Your task to perform on an android device: Is it going to rain today? Image 0: 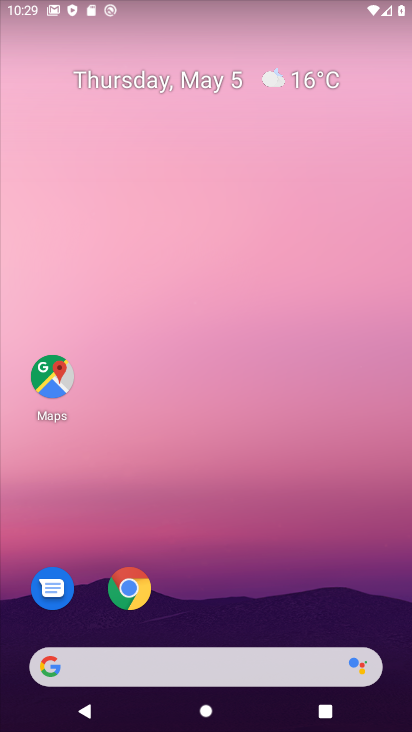
Step 0: drag from (209, 532) to (132, 20)
Your task to perform on an android device: Is it going to rain today? Image 1: 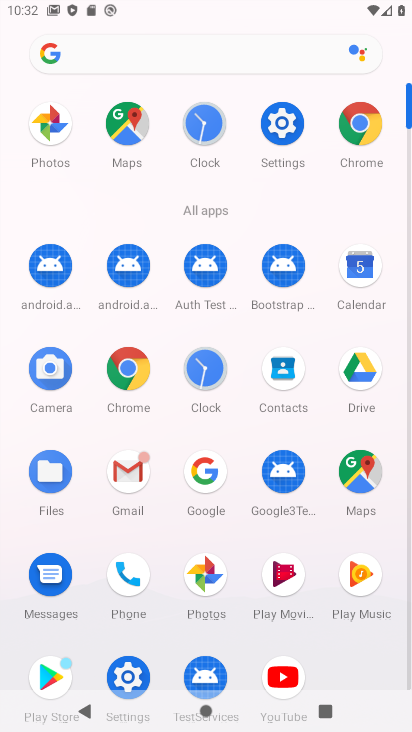
Step 1: click (332, 140)
Your task to perform on an android device: Is it going to rain today? Image 2: 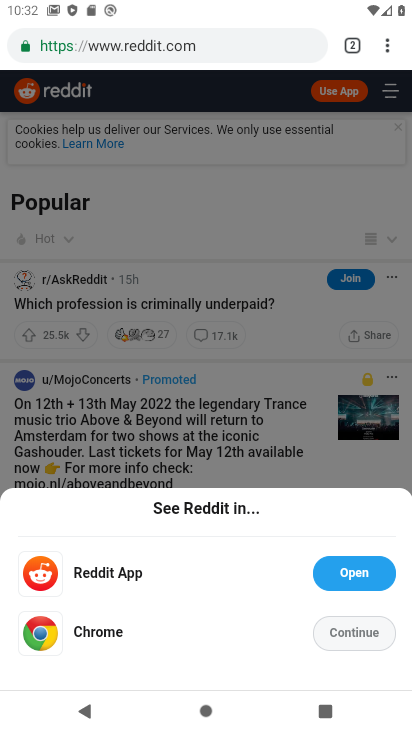
Step 2: press back button
Your task to perform on an android device: Is it going to rain today? Image 3: 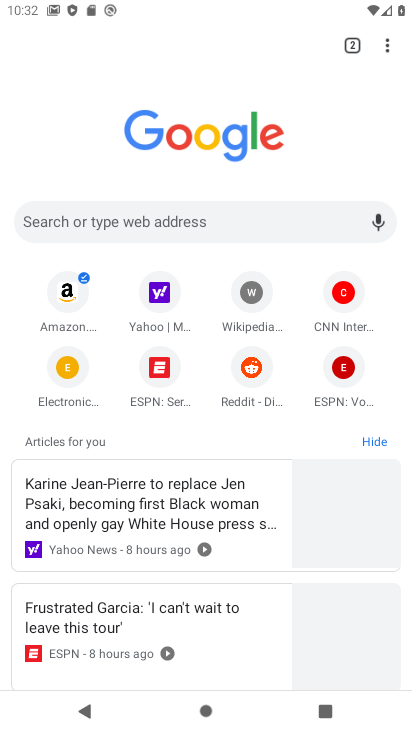
Step 3: click (113, 52)
Your task to perform on an android device: Is it going to rain today? Image 4: 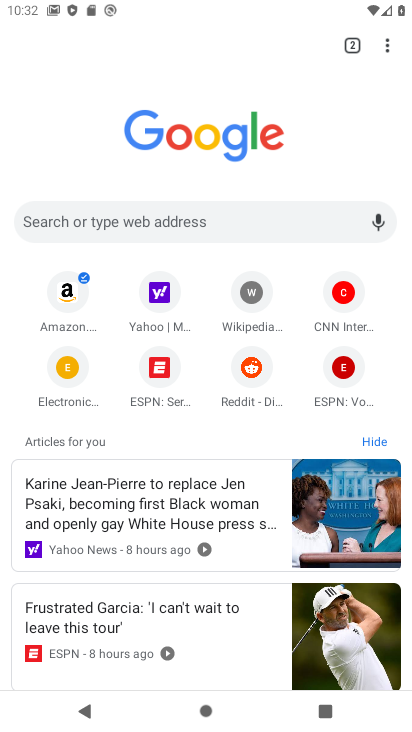
Step 4: click (115, 42)
Your task to perform on an android device: Is it going to rain today? Image 5: 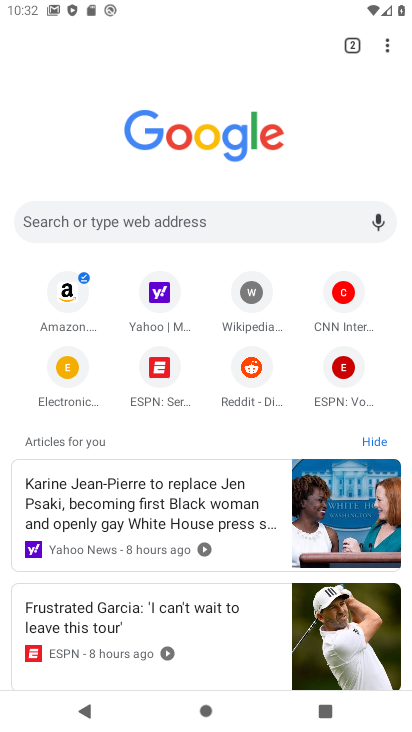
Step 5: click (142, 200)
Your task to perform on an android device: Is it going to rain today? Image 6: 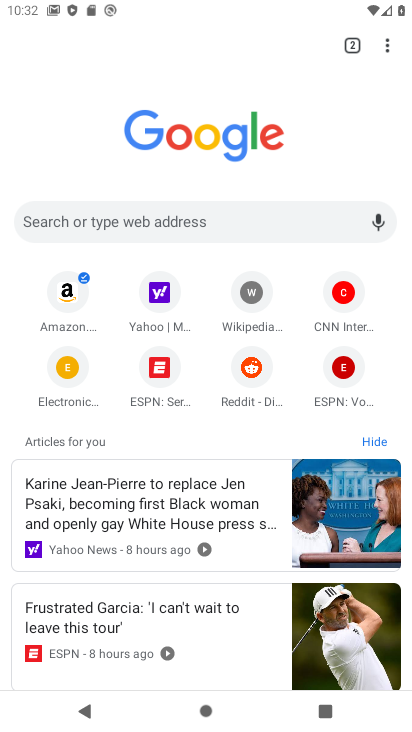
Step 6: click (142, 214)
Your task to perform on an android device: Is it going to rain today? Image 7: 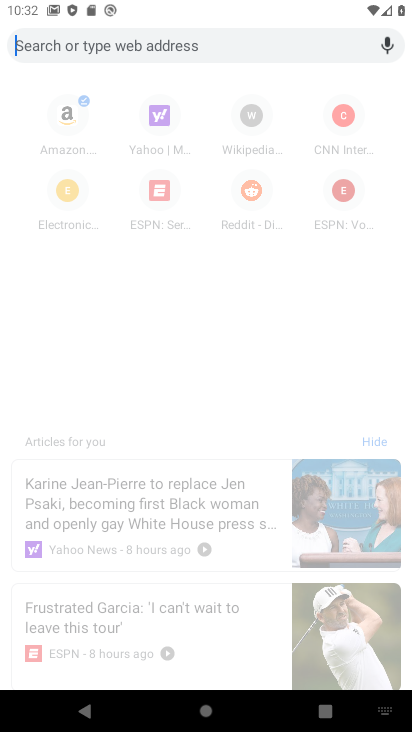
Step 7: type "Is it going to rain today?"
Your task to perform on an android device: Is it going to rain today? Image 8: 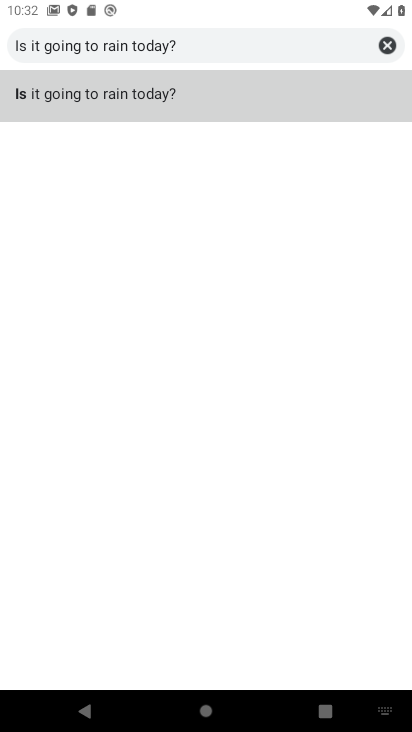
Step 8: click (118, 78)
Your task to perform on an android device: Is it going to rain today? Image 9: 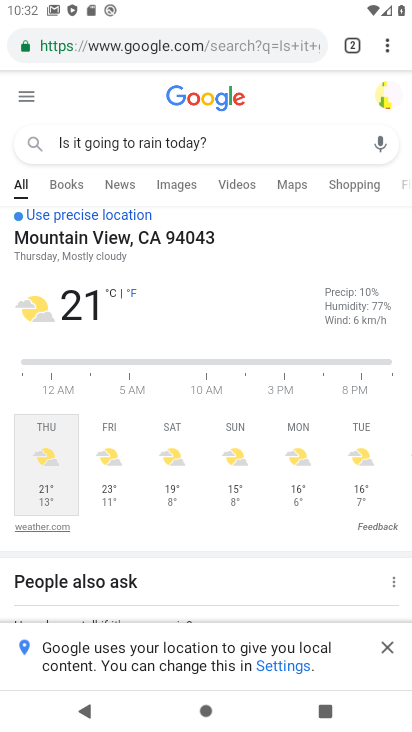
Step 9: task complete